Your task to perform on an android device: Open internet settings Image 0: 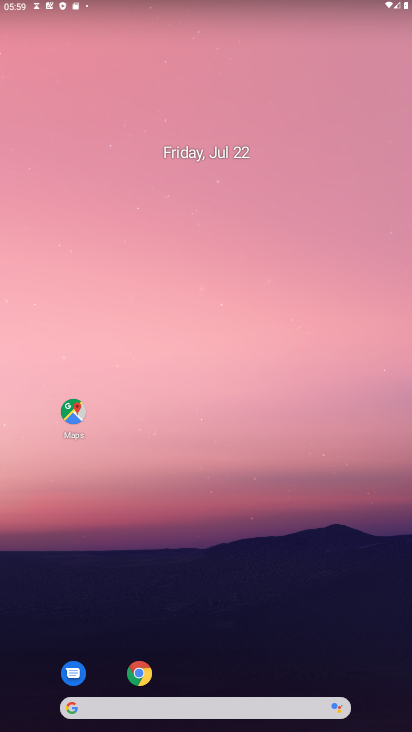
Step 0: press home button
Your task to perform on an android device: Open internet settings Image 1: 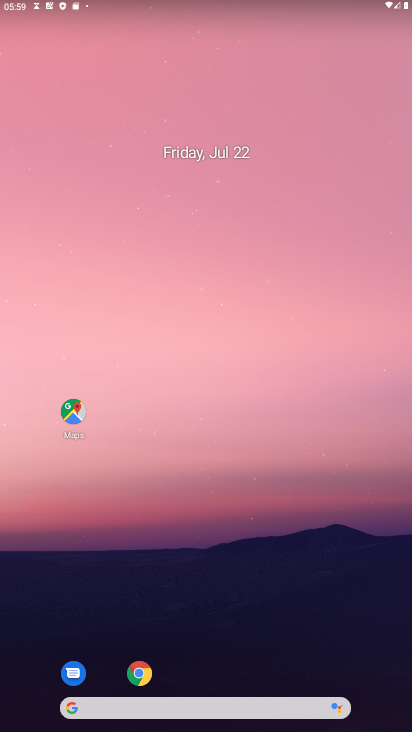
Step 1: drag from (232, 684) to (184, 120)
Your task to perform on an android device: Open internet settings Image 2: 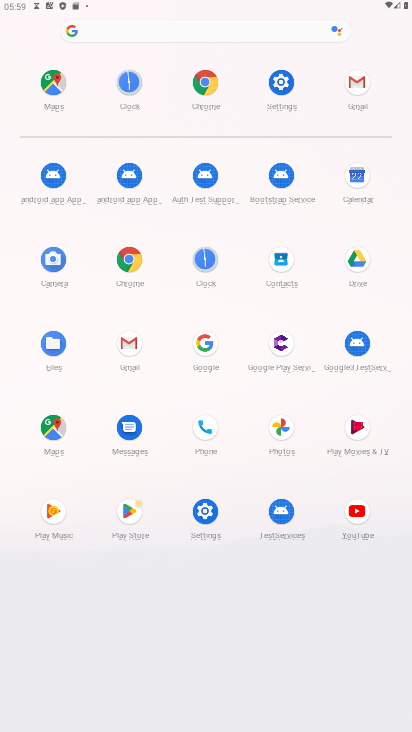
Step 2: click (282, 89)
Your task to perform on an android device: Open internet settings Image 3: 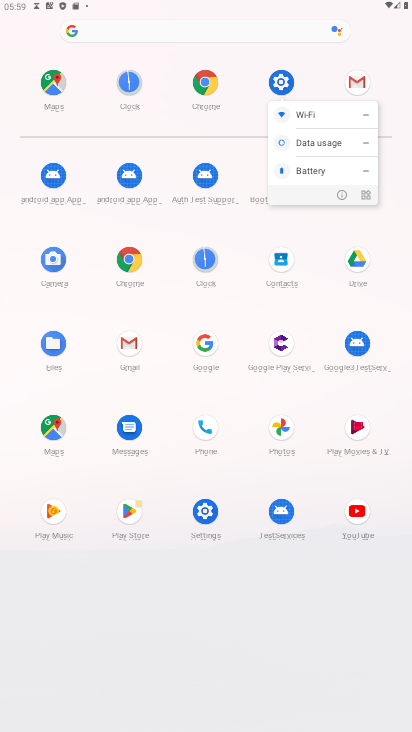
Step 3: click (282, 89)
Your task to perform on an android device: Open internet settings Image 4: 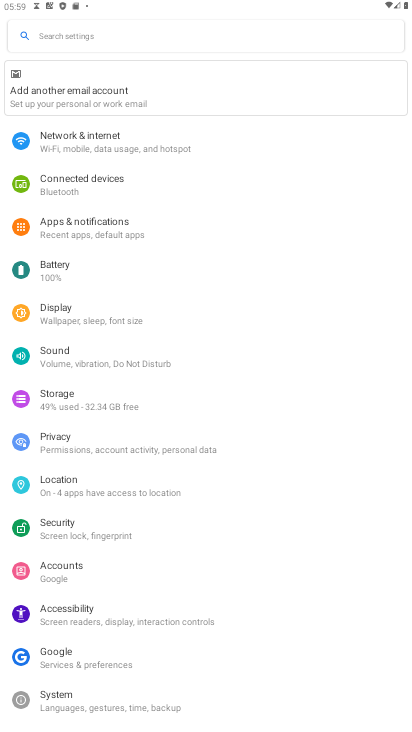
Step 4: click (67, 147)
Your task to perform on an android device: Open internet settings Image 5: 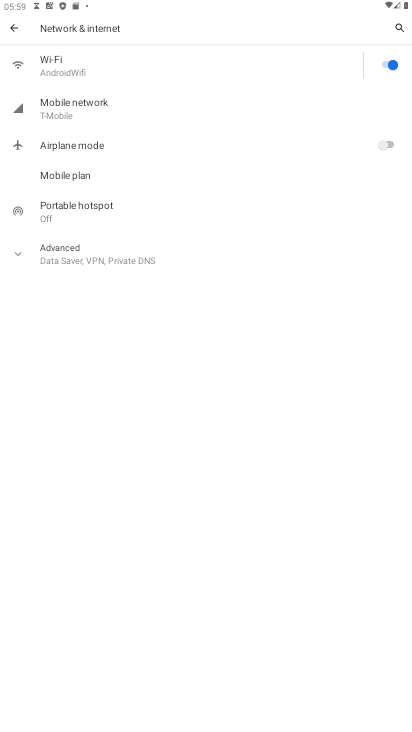
Step 5: task complete